Your task to perform on an android device: see tabs open on other devices in the chrome app Image 0: 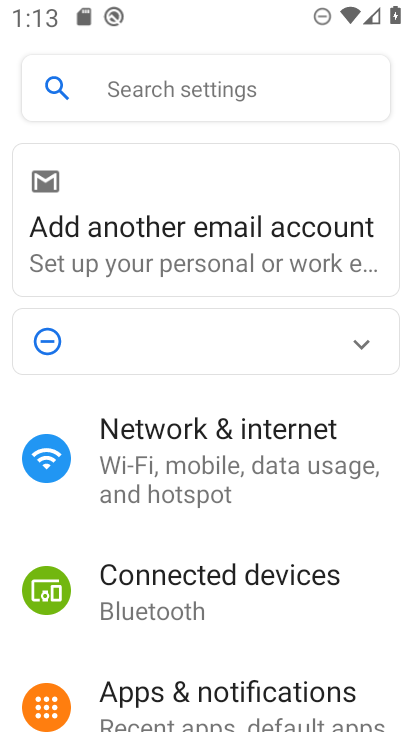
Step 0: press home button
Your task to perform on an android device: see tabs open on other devices in the chrome app Image 1: 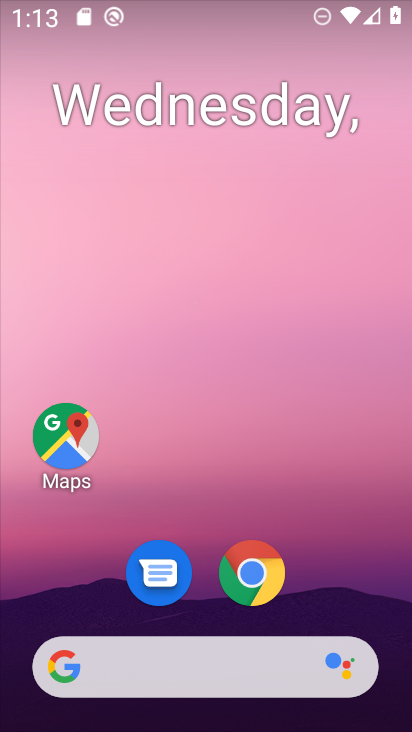
Step 1: click (261, 576)
Your task to perform on an android device: see tabs open on other devices in the chrome app Image 2: 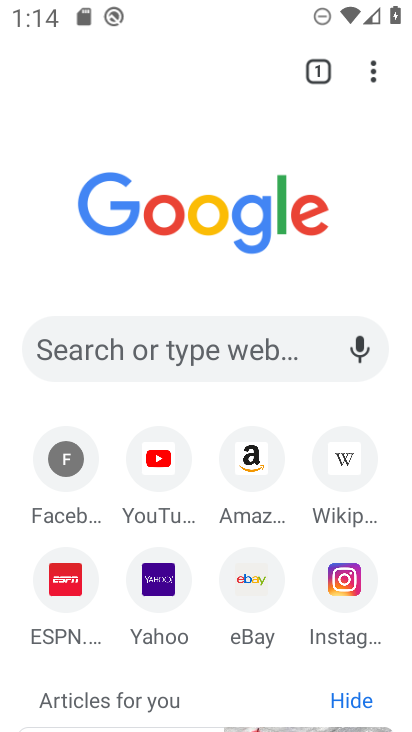
Step 2: click (371, 72)
Your task to perform on an android device: see tabs open on other devices in the chrome app Image 3: 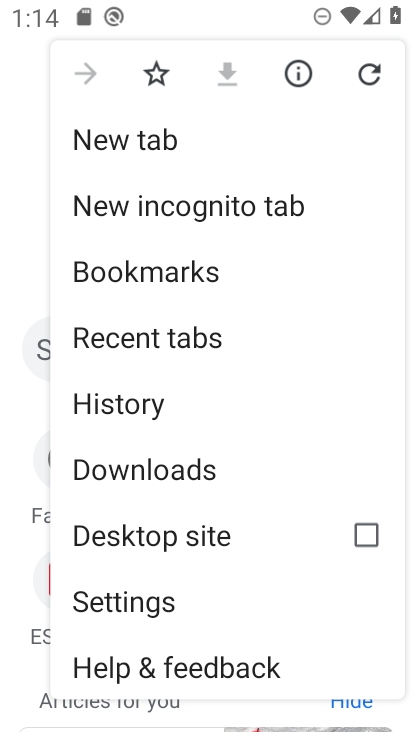
Step 3: click (201, 342)
Your task to perform on an android device: see tabs open on other devices in the chrome app Image 4: 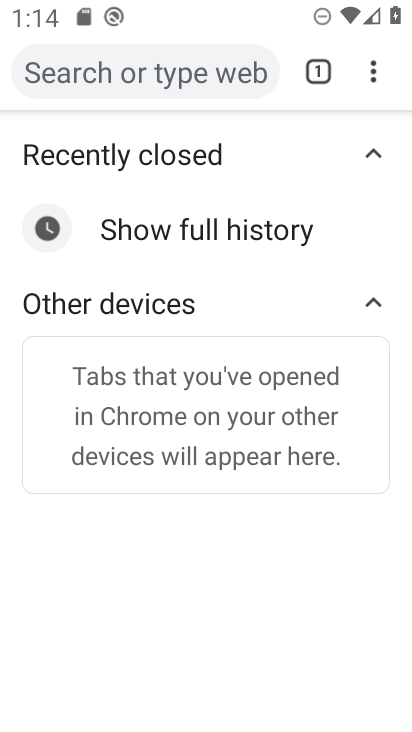
Step 4: task complete